Your task to perform on an android device: Show me the alarms in the clock app Image 0: 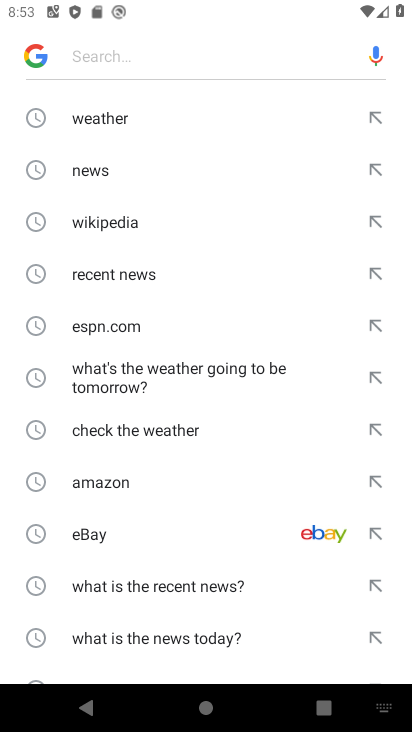
Step 0: press home button
Your task to perform on an android device: Show me the alarms in the clock app Image 1: 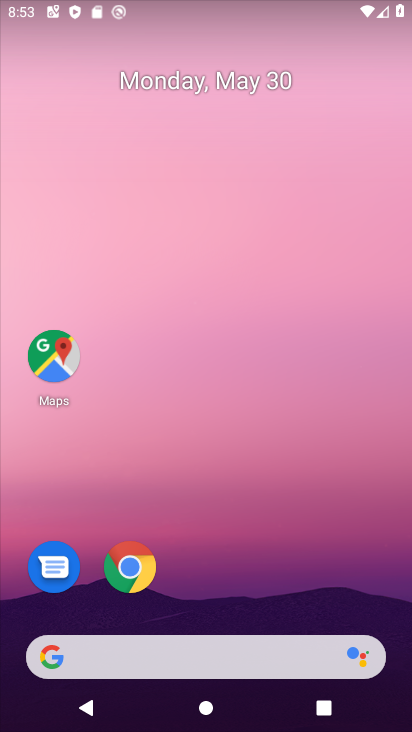
Step 1: drag from (187, 622) to (247, 93)
Your task to perform on an android device: Show me the alarms in the clock app Image 2: 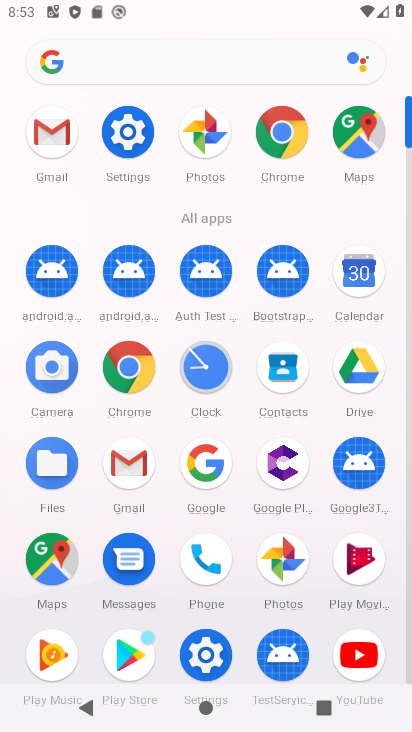
Step 2: click (192, 382)
Your task to perform on an android device: Show me the alarms in the clock app Image 3: 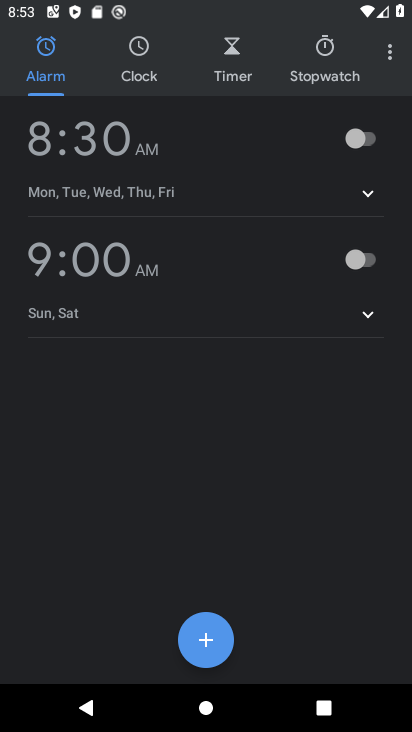
Step 3: task complete